Your task to perform on an android device: Go to network settings Image 0: 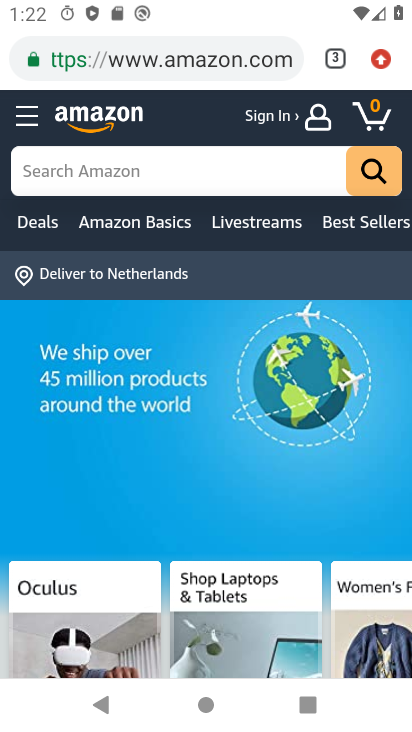
Step 0: press home button
Your task to perform on an android device: Go to network settings Image 1: 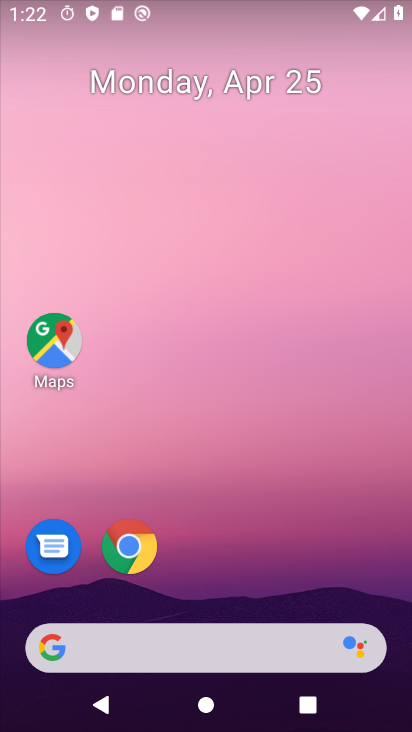
Step 1: drag from (199, 606) to (191, 61)
Your task to perform on an android device: Go to network settings Image 2: 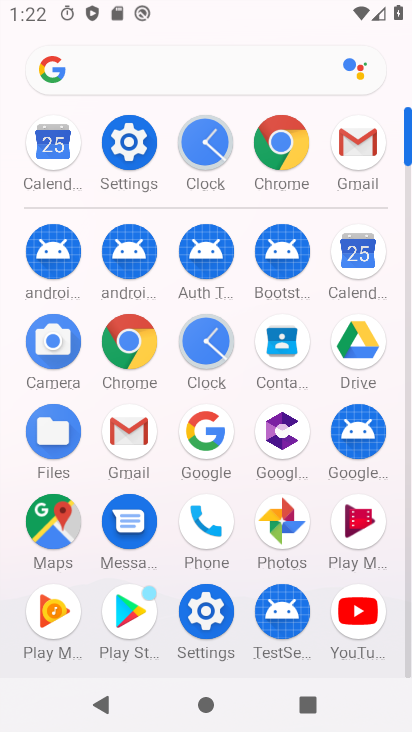
Step 2: click (133, 149)
Your task to perform on an android device: Go to network settings Image 3: 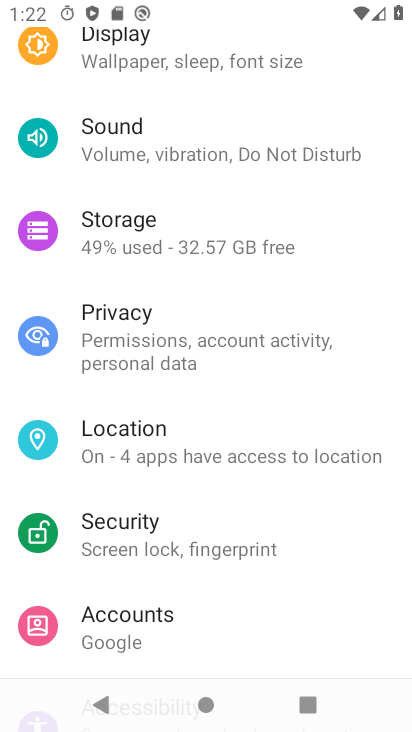
Step 3: drag from (133, 364) to (118, 452)
Your task to perform on an android device: Go to network settings Image 4: 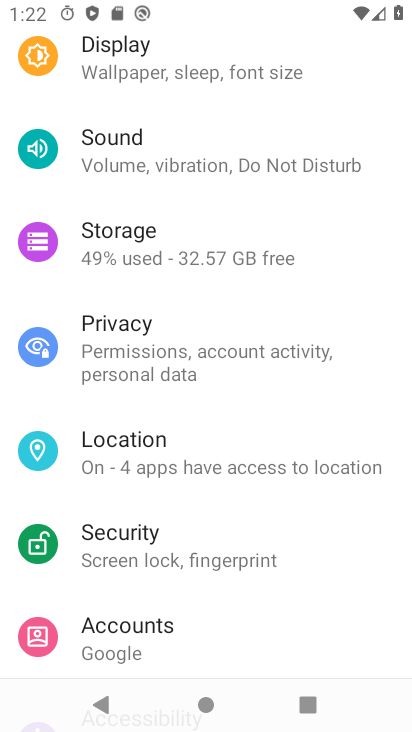
Step 4: drag from (149, 160) to (156, 589)
Your task to perform on an android device: Go to network settings Image 5: 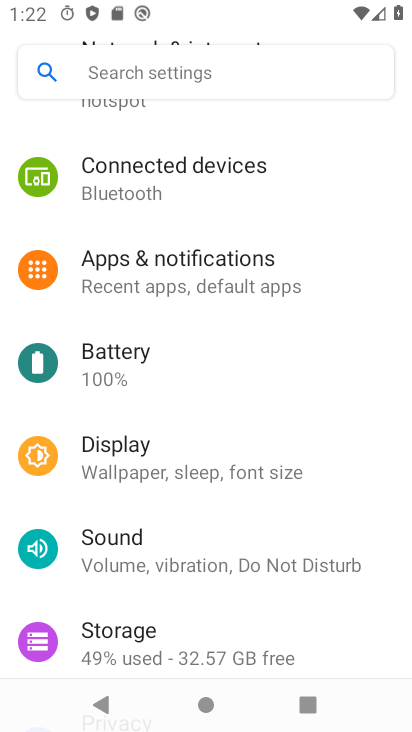
Step 5: drag from (126, 195) to (106, 542)
Your task to perform on an android device: Go to network settings Image 6: 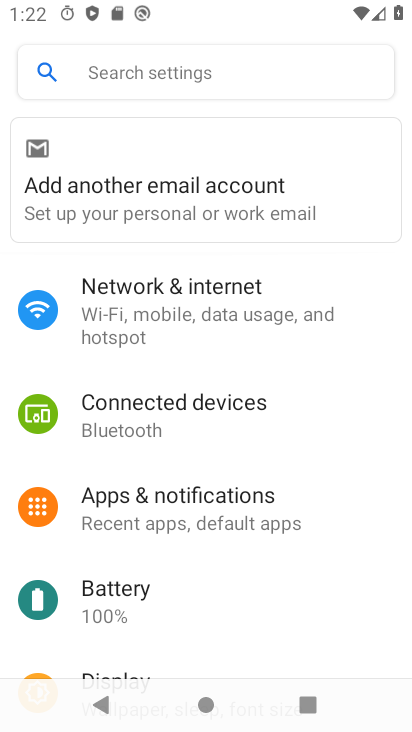
Step 6: click (133, 336)
Your task to perform on an android device: Go to network settings Image 7: 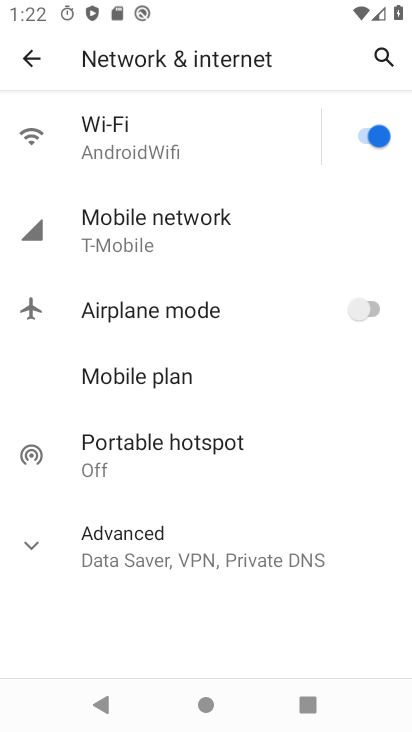
Step 7: click (128, 249)
Your task to perform on an android device: Go to network settings Image 8: 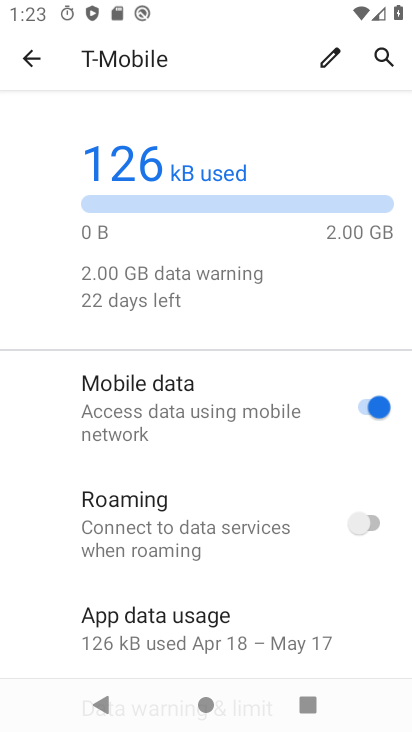
Step 8: task complete